Your task to perform on an android device: check out phone information Image 0: 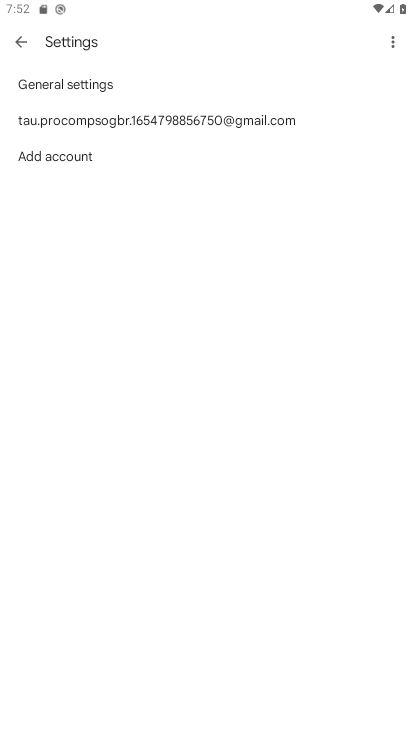
Step 0: press home button
Your task to perform on an android device: check out phone information Image 1: 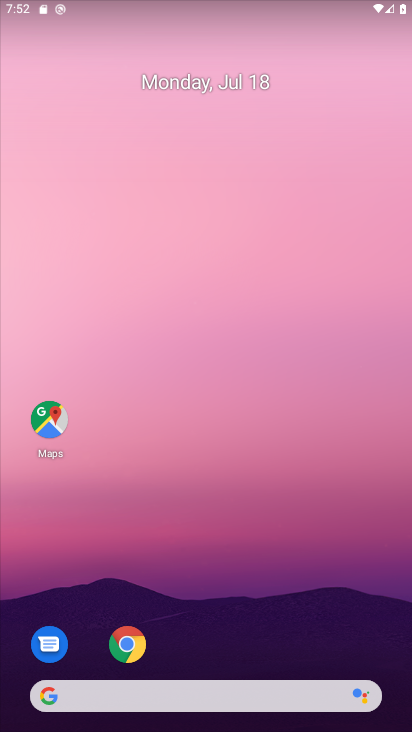
Step 1: drag from (250, 674) to (254, 204)
Your task to perform on an android device: check out phone information Image 2: 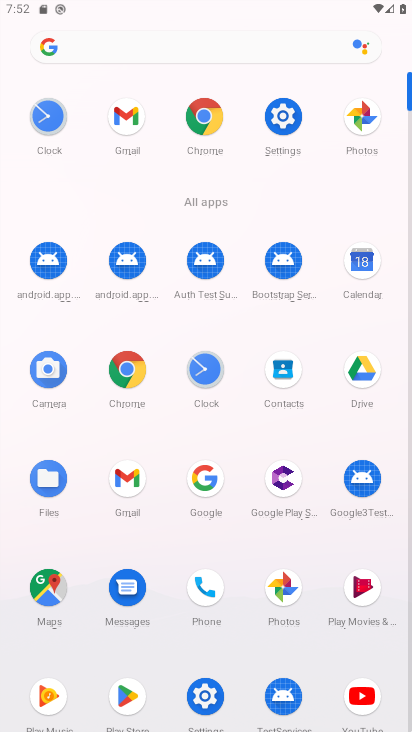
Step 2: click (209, 696)
Your task to perform on an android device: check out phone information Image 3: 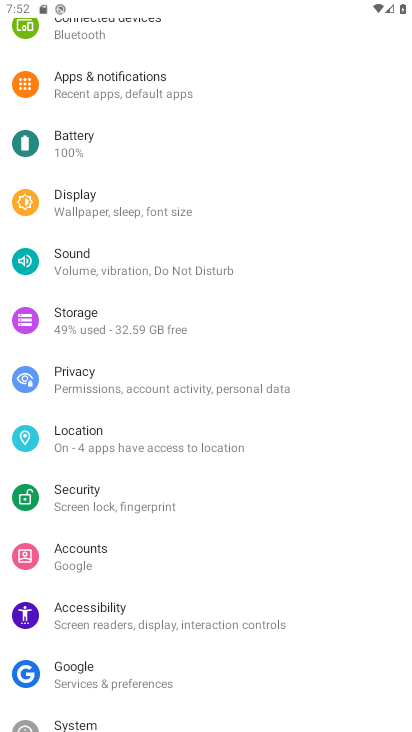
Step 3: drag from (202, 677) to (151, 232)
Your task to perform on an android device: check out phone information Image 4: 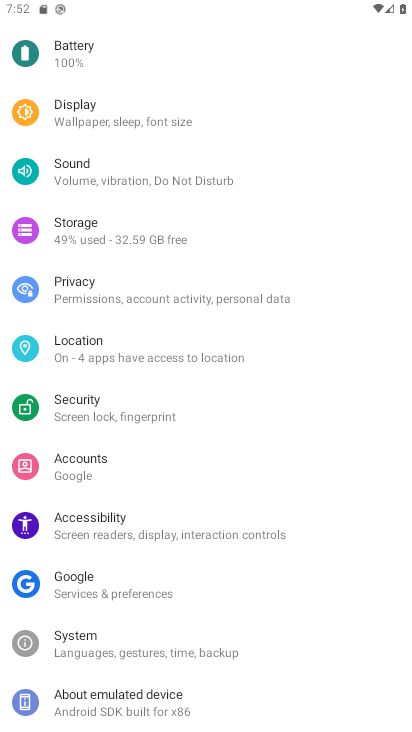
Step 4: click (139, 676)
Your task to perform on an android device: check out phone information Image 5: 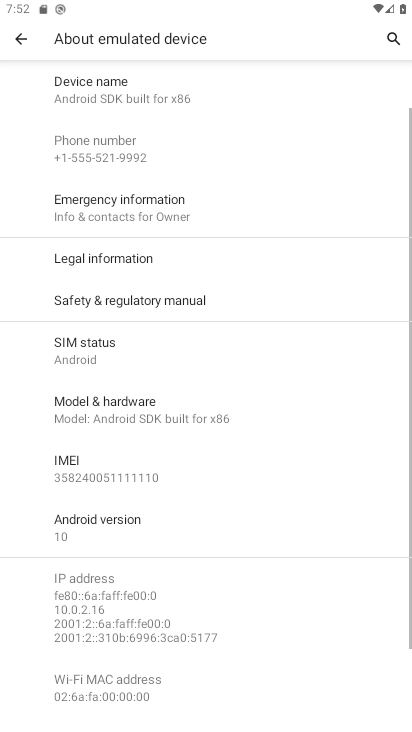
Step 5: task complete